Your task to perform on an android device: create a new album in the google photos Image 0: 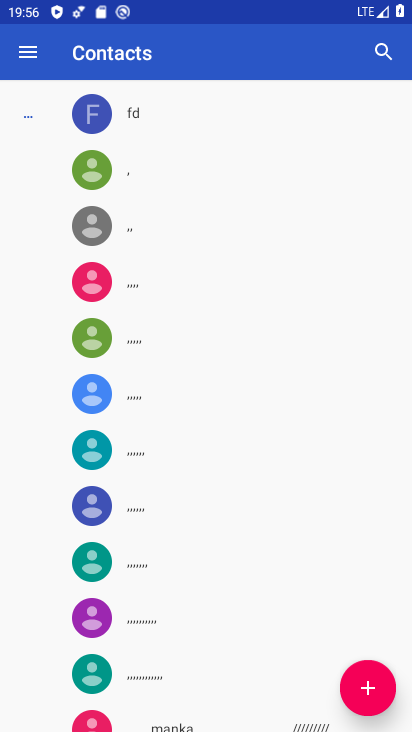
Step 0: press home button
Your task to perform on an android device: create a new album in the google photos Image 1: 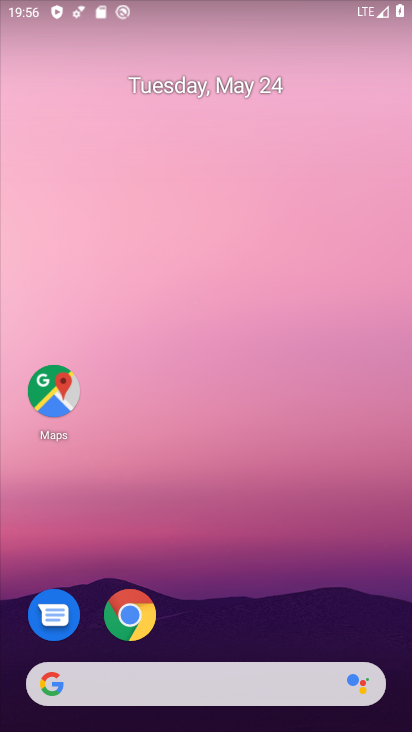
Step 1: drag from (239, 574) to (251, 295)
Your task to perform on an android device: create a new album in the google photos Image 2: 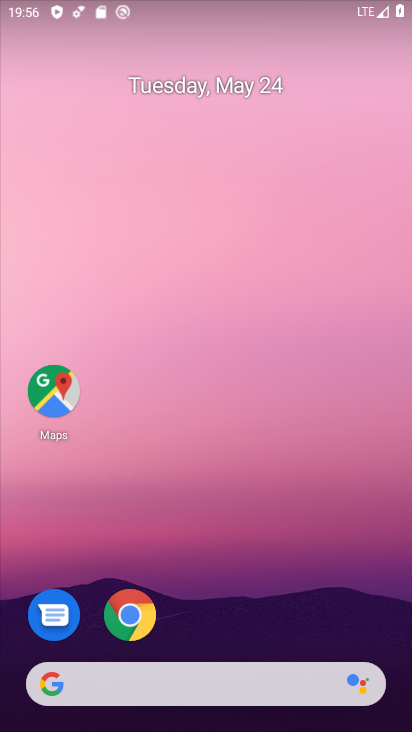
Step 2: drag from (229, 606) to (229, 245)
Your task to perform on an android device: create a new album in the google photos Image 3: 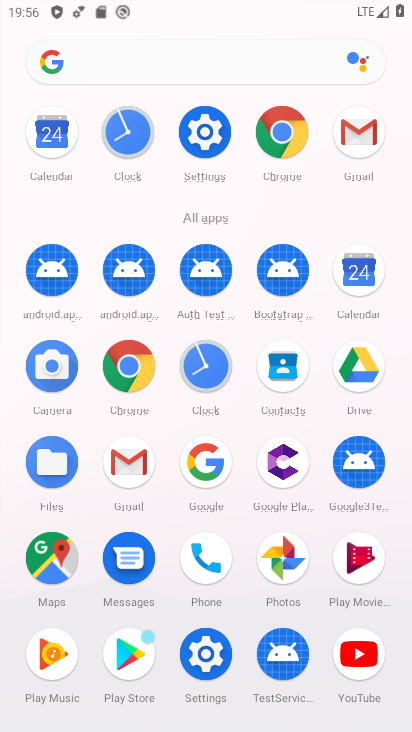
Step 3: click (286, 552)
Your task to perform on an android device: create a new album in the google photos Image 4: 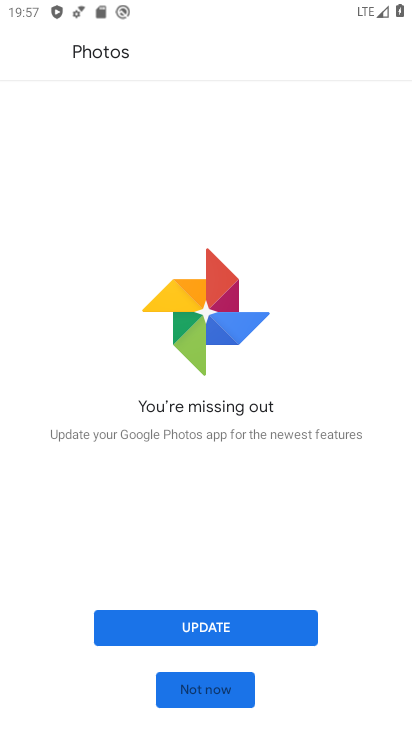
Step 4: click (200, 697)
Your task to perform on an android device: create a new album in the google photos Image 5: 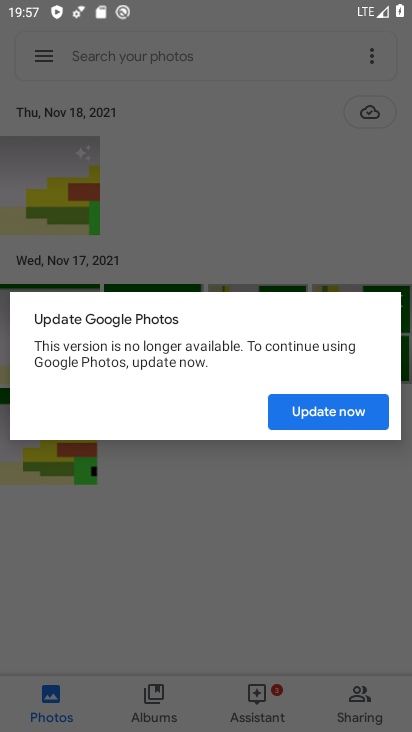
Step 5: click (327, 400)
Your task to perform on an android device: create a new album in the google photos Image 6: 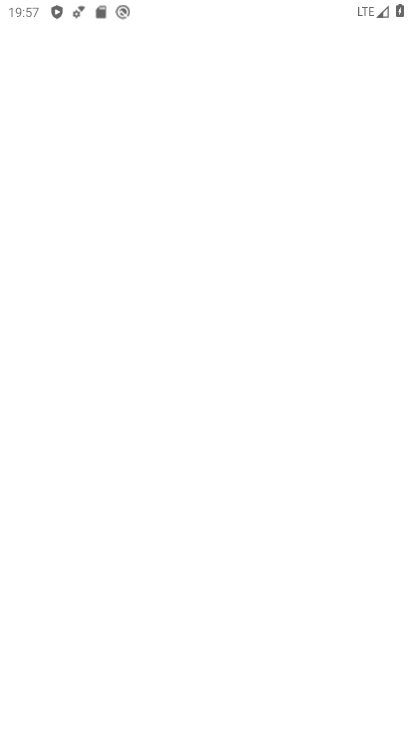
Step 6: press back button
Your task to perform on an android device: create a new album in the google photos Image 7: 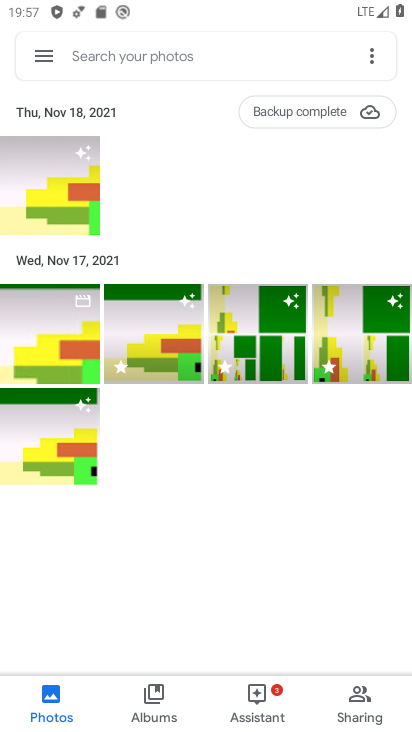
Step 7: click (42, 323)
Your task to perform on an android device: create a new album in the google photos Image 8: 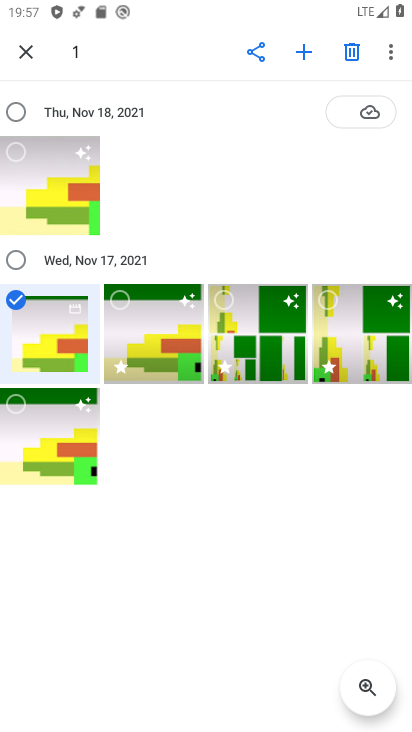
Step 8: click (303, 53)
Your task to perform on an android device: create a new album in the google photos Image 9: 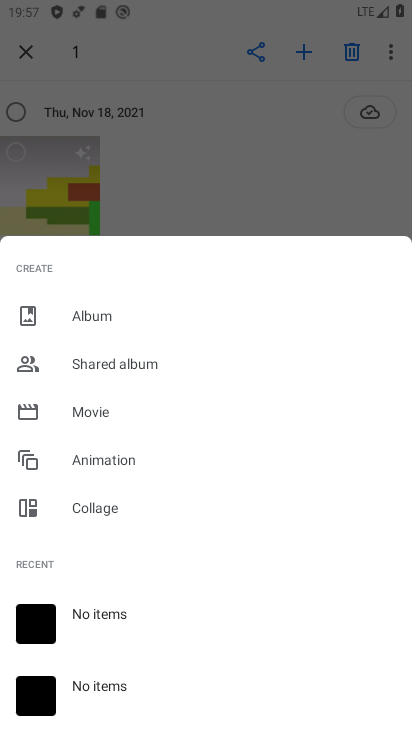
Step 9: click (103, 321)
Your task to perform on an android device: create a new album in the google photos Image 10: 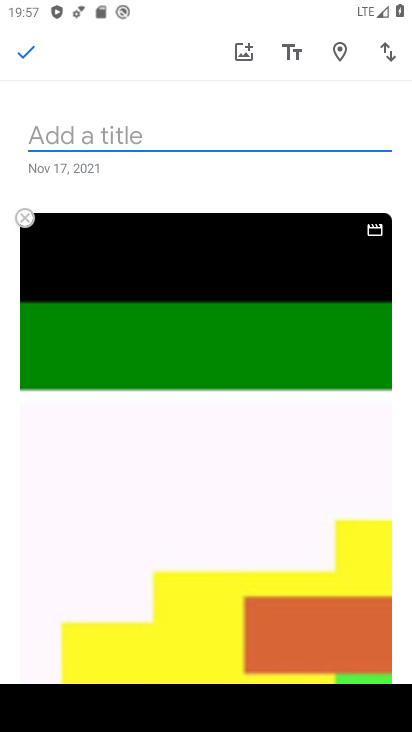
Step 10: click (154, 130)
Your task to perform on an android device: create a new album in the google photos Image 11: 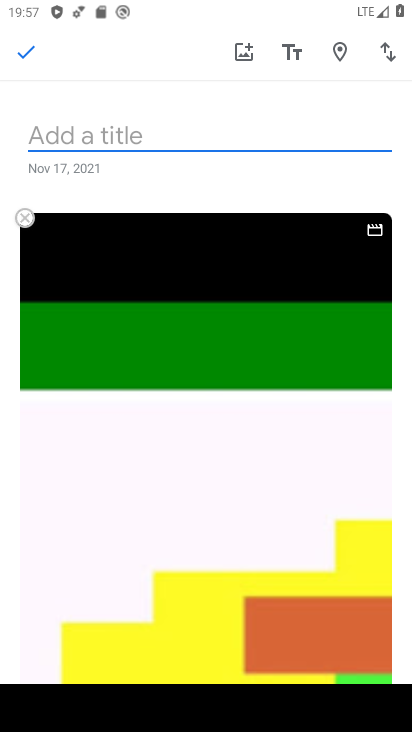
Step 11: type "lkjhgfdsa"
Your task to perform on an android device: create a new album in the google photos Image 12: 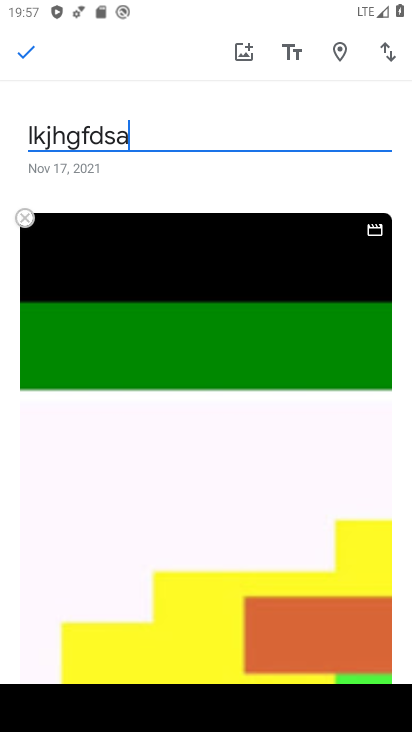
Step 12: click (33, 53)
Your task to perform on an android device: create a new album in the google photos Image 13: 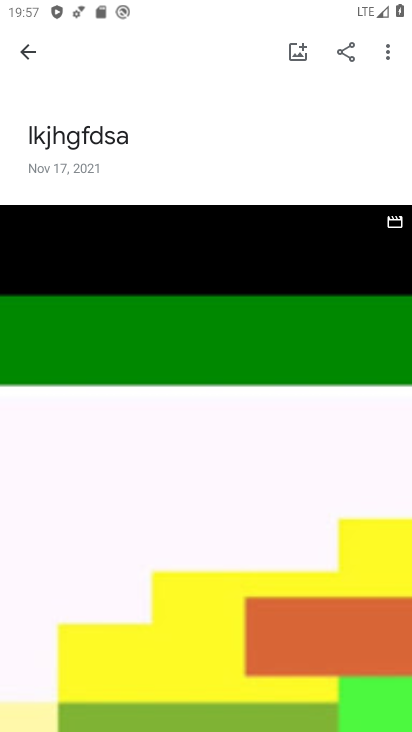
Step 13: task complete